Your task to perform on an android device: Open calendar and show me the third week of next month Image 0: 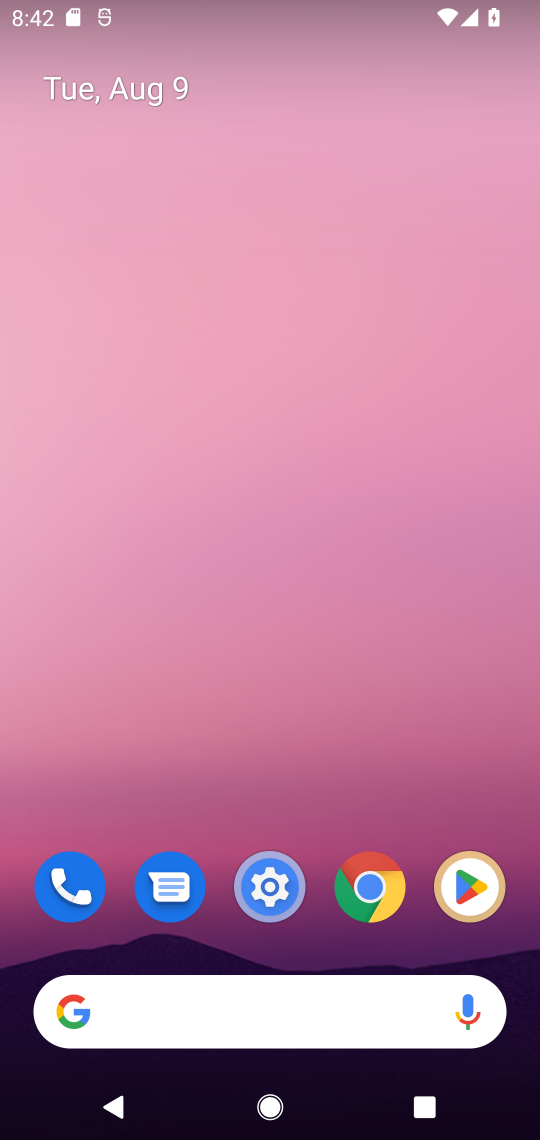
Step 0: drag from (261, 785) to (289, 44)
Your task to perform on an android device: Open calendar and show me the third week of next month Image 1: 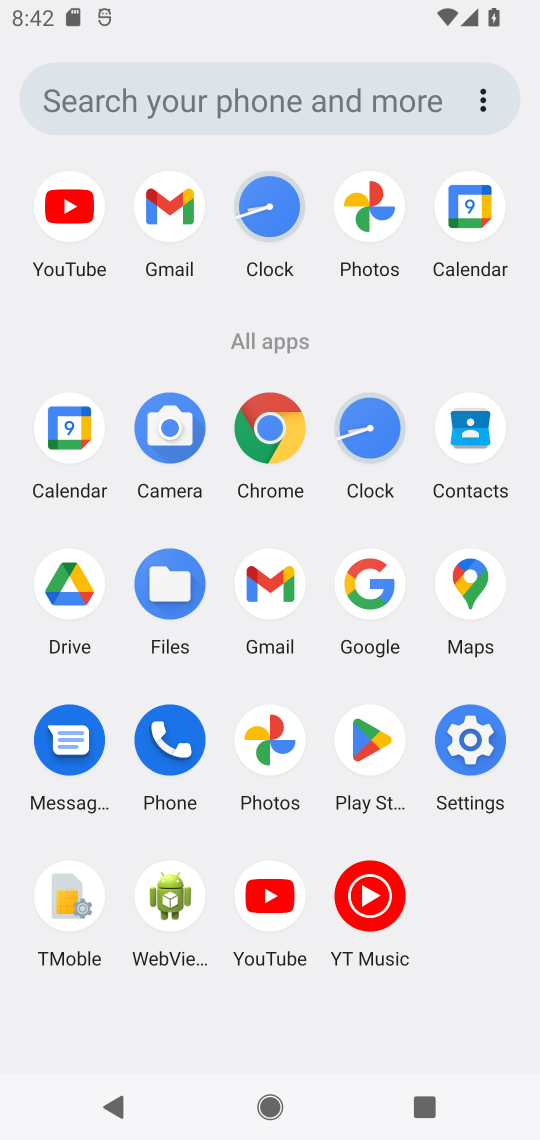
Step 1: click (465, 202)
Your task to perform on an android device: Open calendar and show me the third week of next month Image 2: 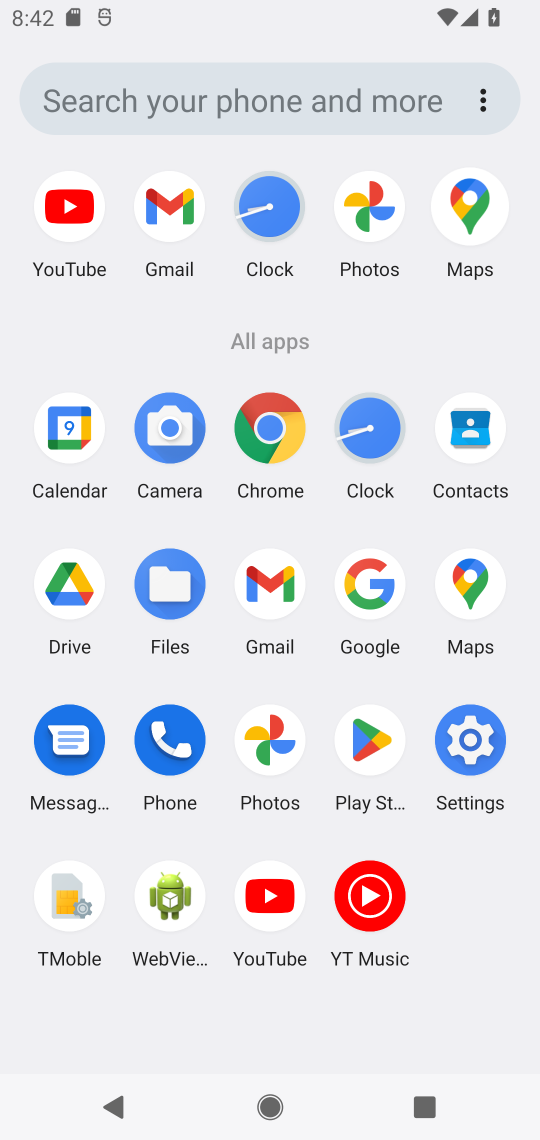
Step 2: click (67, 423)
Your task to perform on an android device: Open calendar and show me the third week of next month Image 3: 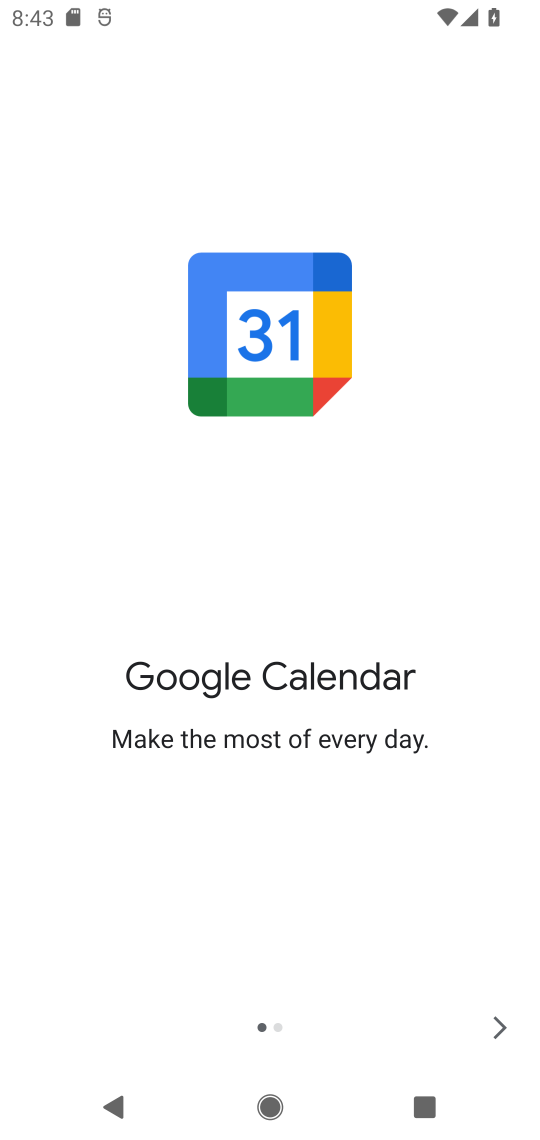
Step 3: click (486, 1031)
Your task to perform on an android device: Open calendar and show me the third week of next month Image 4: 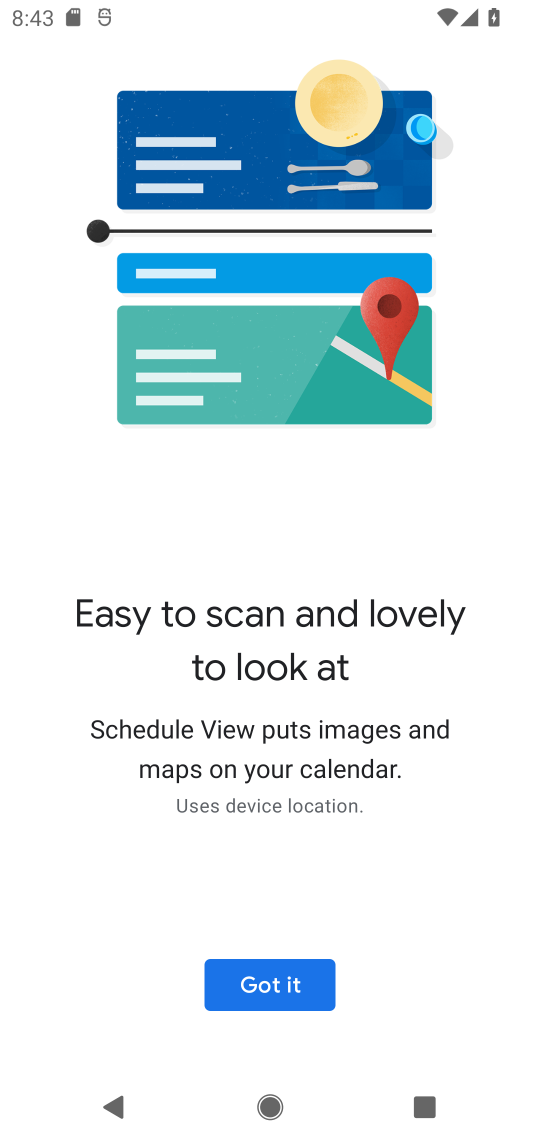
Step 4: click (309, 965)
Your task to perform on an android device: Open calendar and show me the third week of next month Image 5: 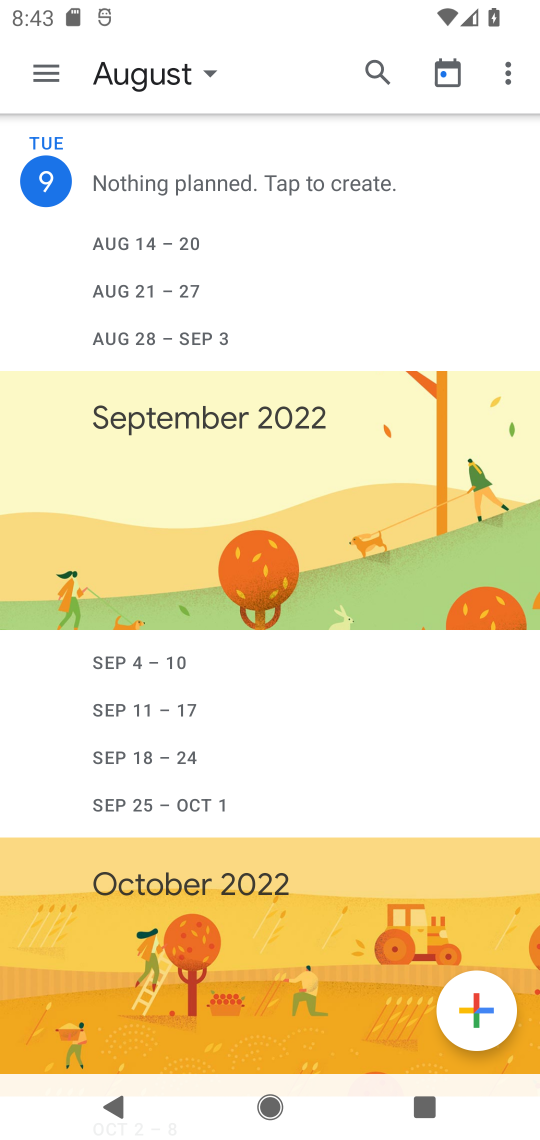
Step 5: click (205, 81)
Your task to perform on an android device: Open calendar and show me the third week of next month Image 6: 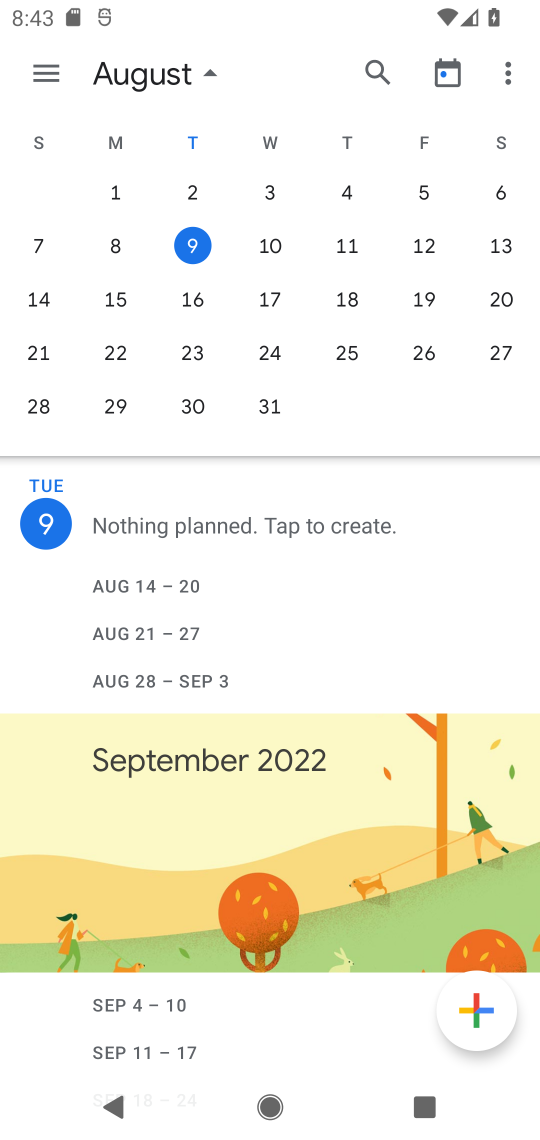
Step 6: drag from (341, 294) to (14, 220)
Your task to perform on an android device: Open calendar and show me the third week of next month Image 7: 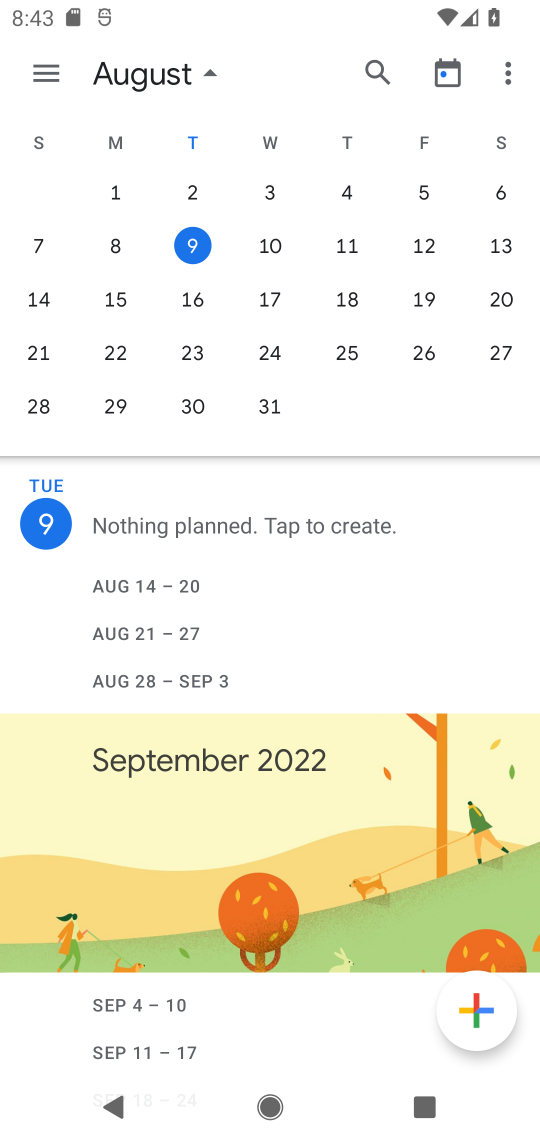
Step 7: drag from (464, 295) to (122, 268)
Your task to perform on an android device: Open calendar and show me the third week of next month Image 8: 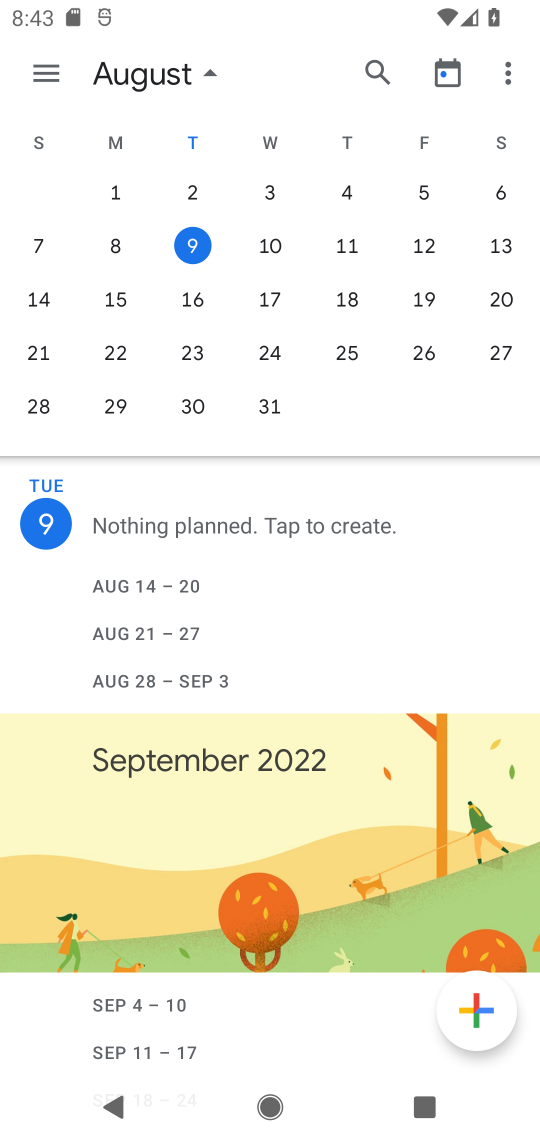
Step 8: drag from (429, 306) to (20, 306)
Your task to perform on an android device: Open calendar and show me the third week of next month Image 9: 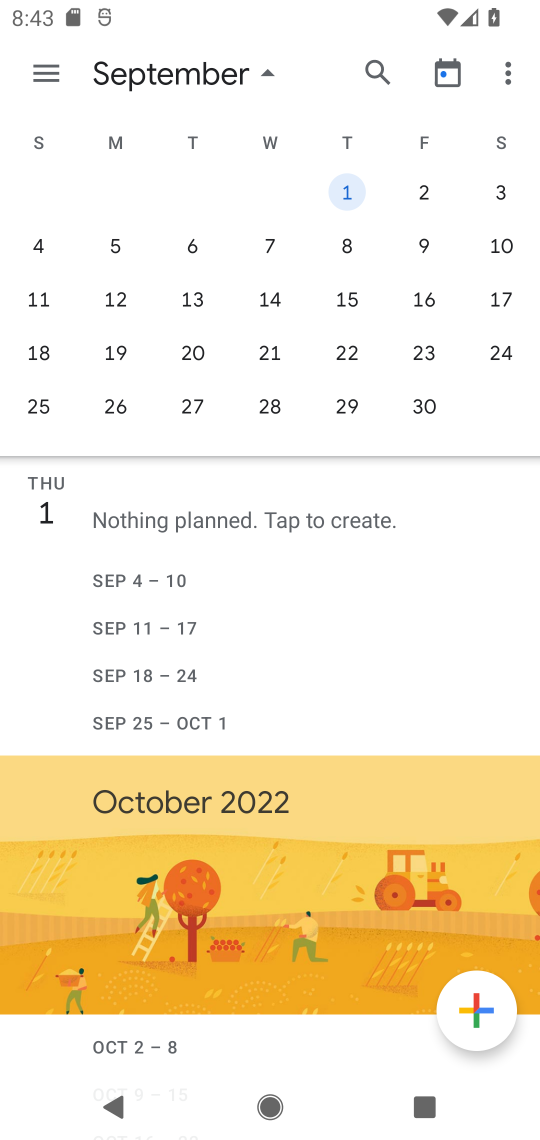
Step 9: drag from (439, 280) to (18, 267)
Your task to perform on an android device: Open calendar and show me the third week of next month Image 10: 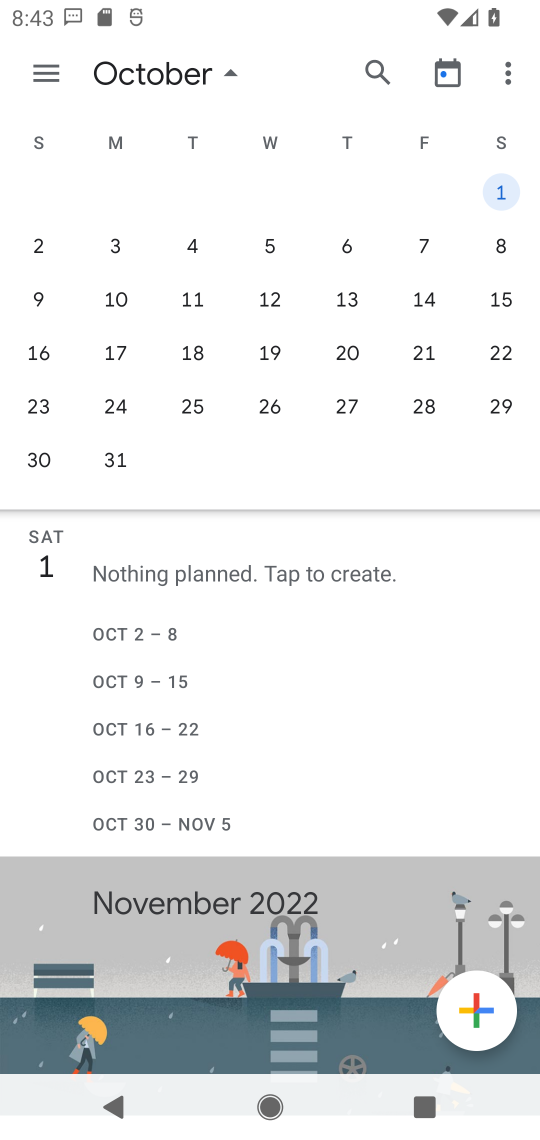
Step 10: drag from (339, 339) to (522, 339)
Your task to perform on an android device: Open calendar and show me the third week of next month Image 11: 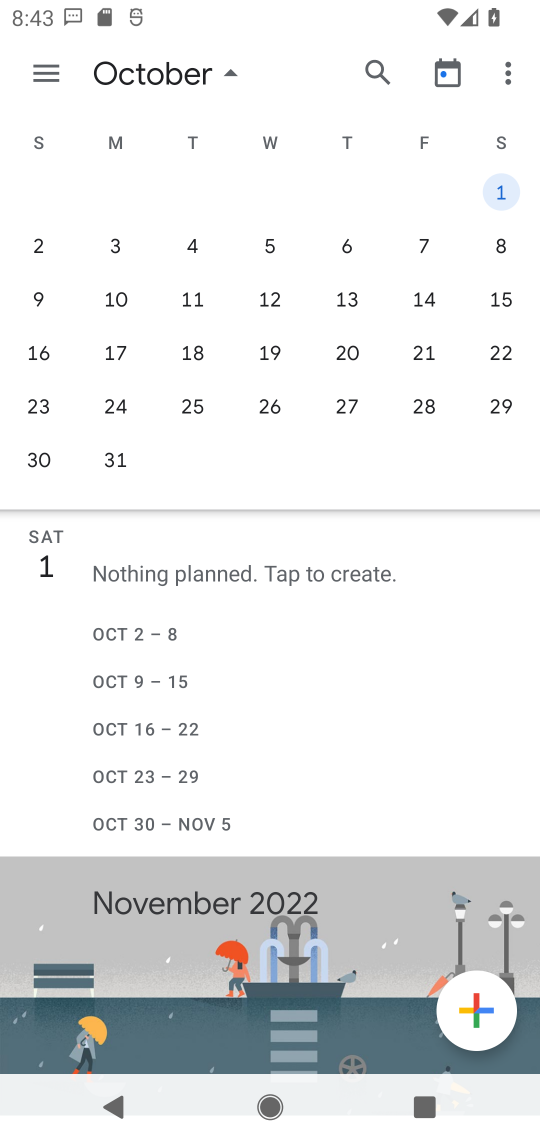
Step 11: drag from (69, 285) to (484, 284)
Your task to perform on an android device: Open calendar and show me the third week of next month Image 12: 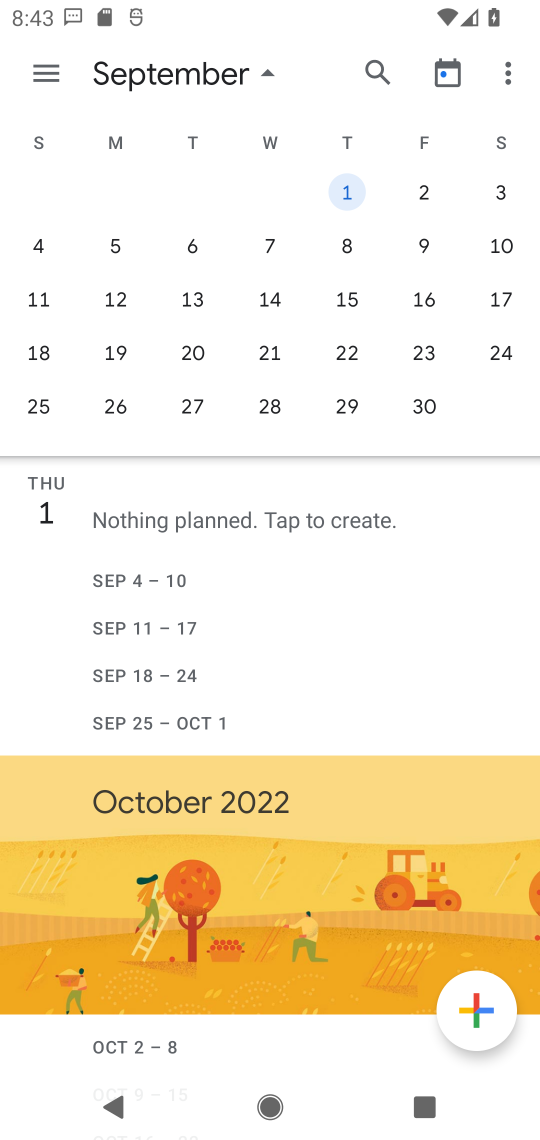
Step 12: click (38, 292)
Your task to perform on an android device: Open calendar and show me the third week of next month Image 13: 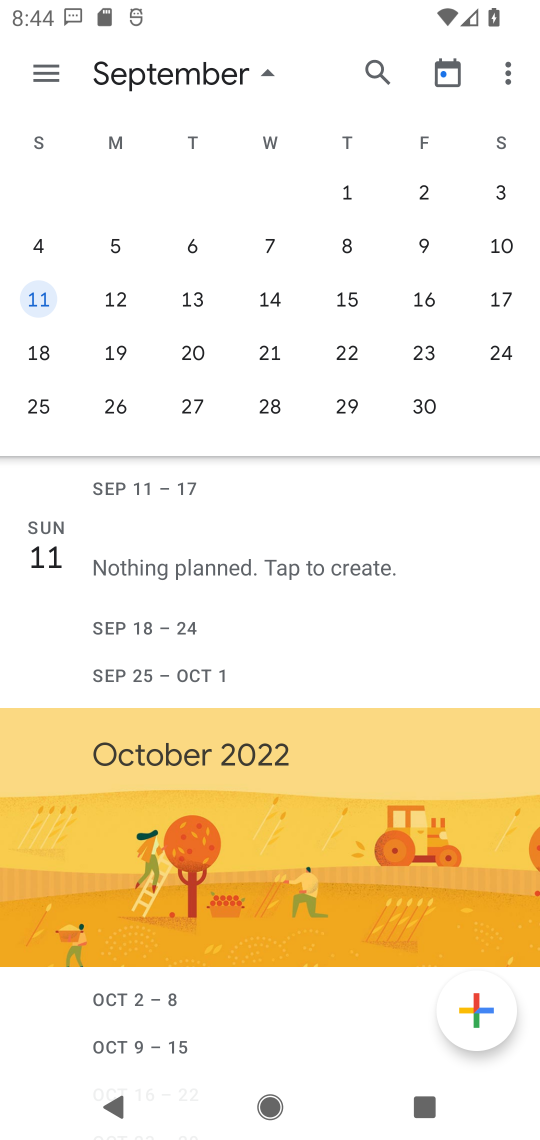
Step 13: task complete